Your task to perform on an android device: Clear the shopping cart on walmart.com. Add "bose soundsport free" to the cart on walmart.com Image 0: 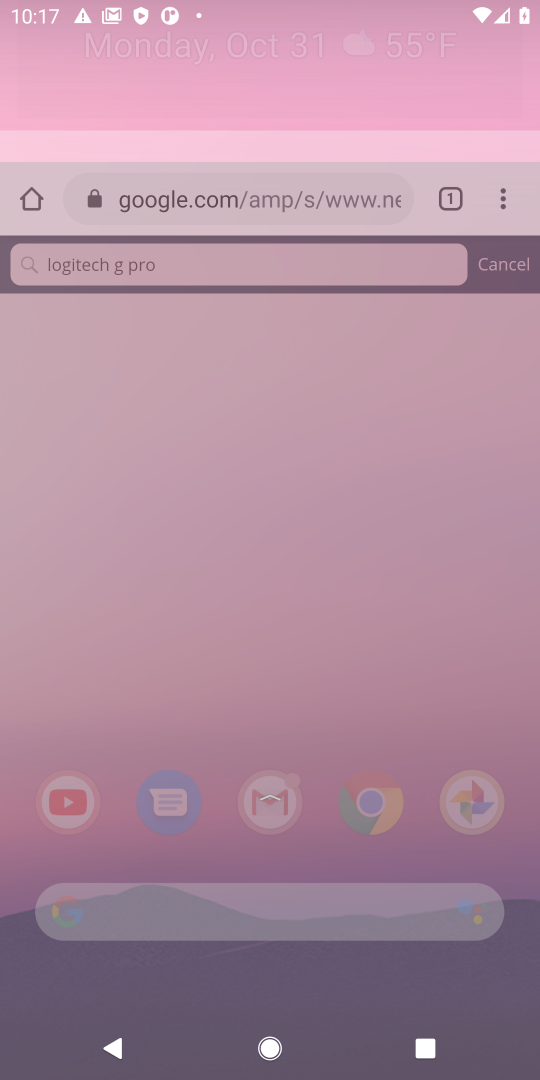
Step 0: press home button
Your task to perform on an android device: Clear the shopping cart on walmart.com. Add "bose soundsport free" to the cart on walmart.com Image 1: 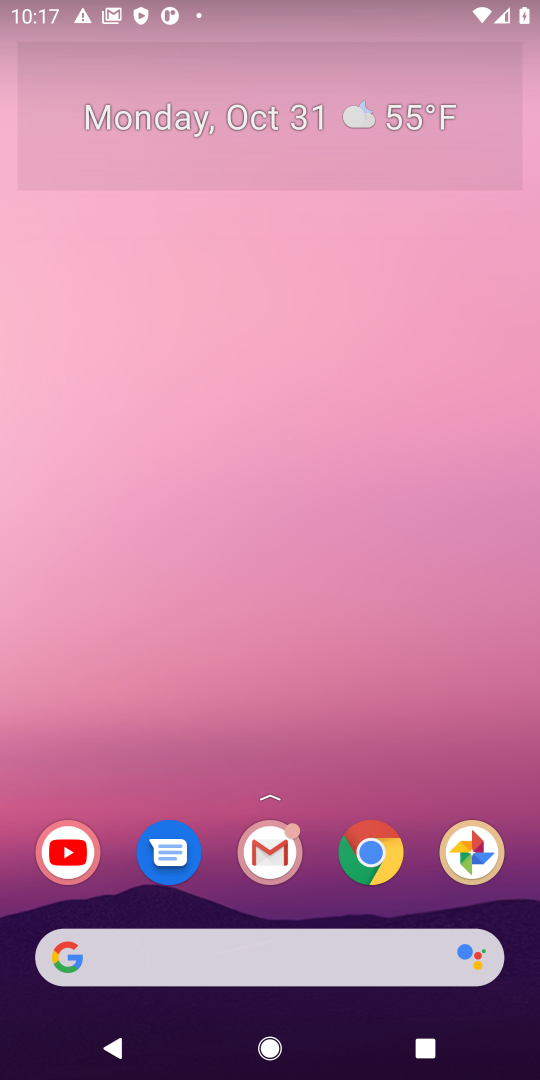
Step 1: drag from (311, 806) to (345, 112)
Your task to perform on an android device: Clear the shopping cart on walmart.com. Add "bose soundsport free" to the cart on walmart.com Image 2: 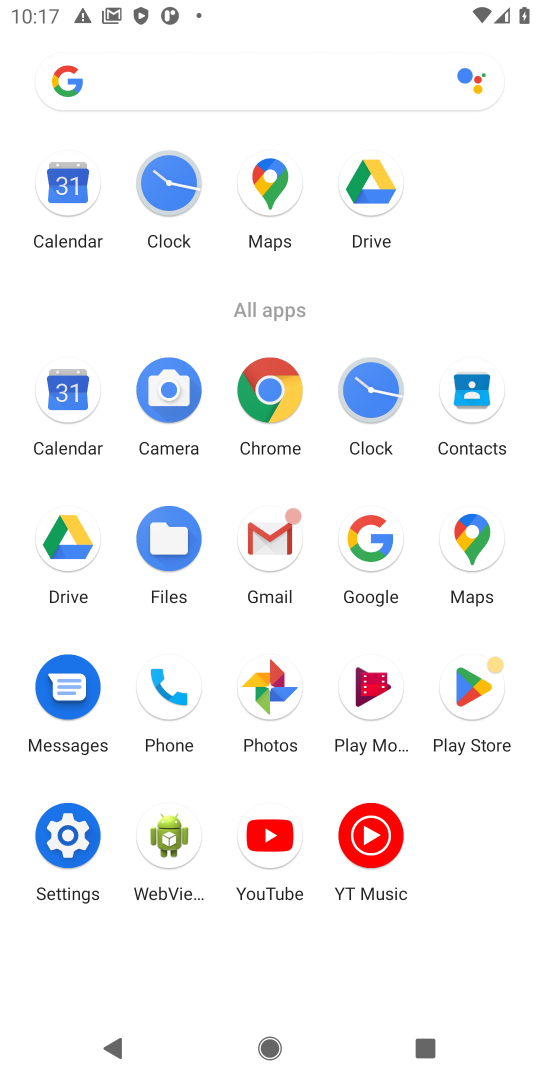
Step 2: click (267, 382)
Your task to perform on an android device: Clear the shopping cart on walmart.com. Add "bose soundsport free" to the cart on walmart.com Image 3: 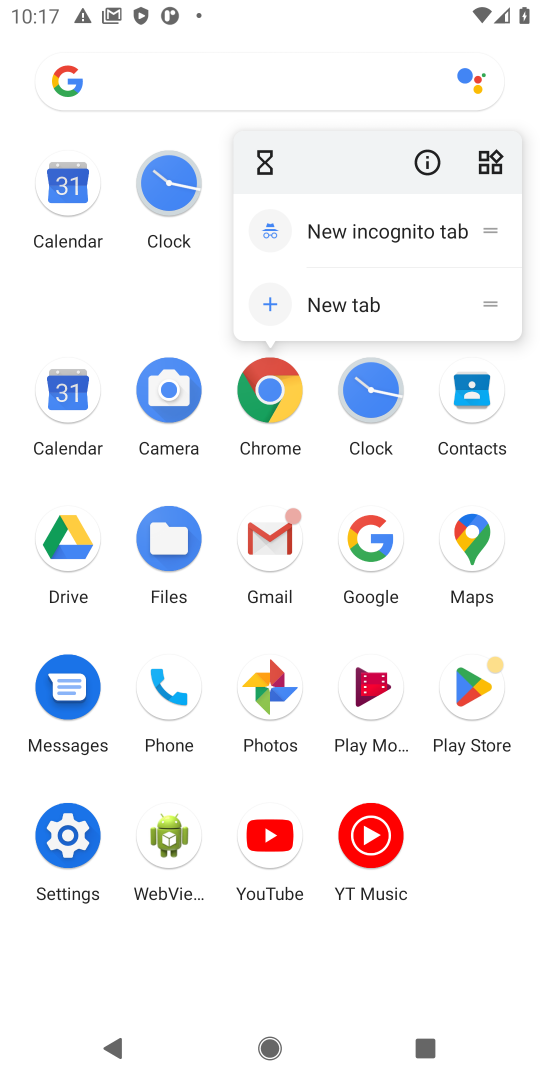
Step 3: click (267, 382)
Your task to perform on an android device: Clear the shopping cart on walmart.com. Add "bose soundsport free" to the cart on walmart.com Image 4: 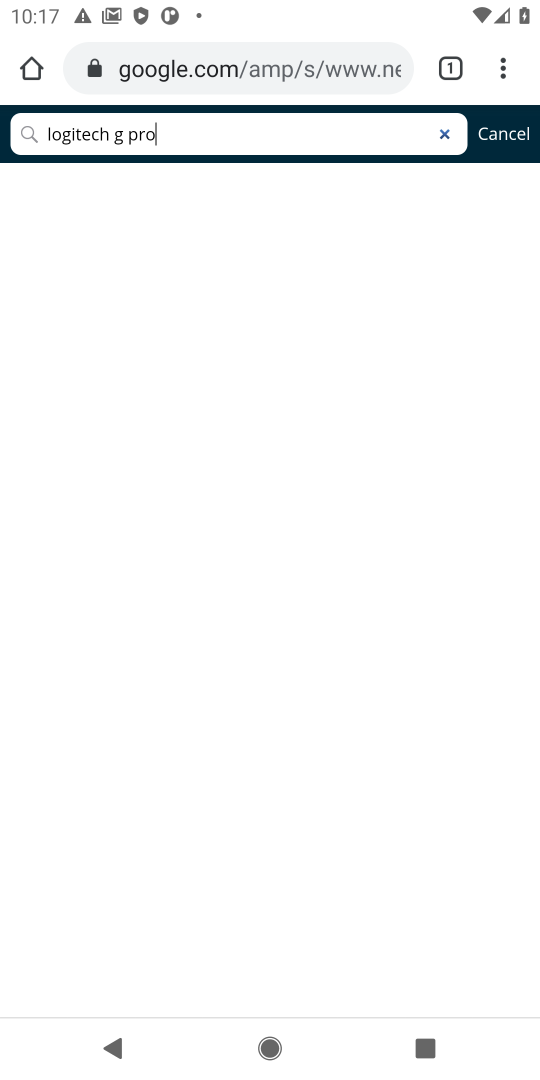
Step 4: click (441, 137)
Your task to perform on an android device: Clear the shopping cart on walmart.com. Add "bose soundsport free" to the cart on walmart.com Image 5: 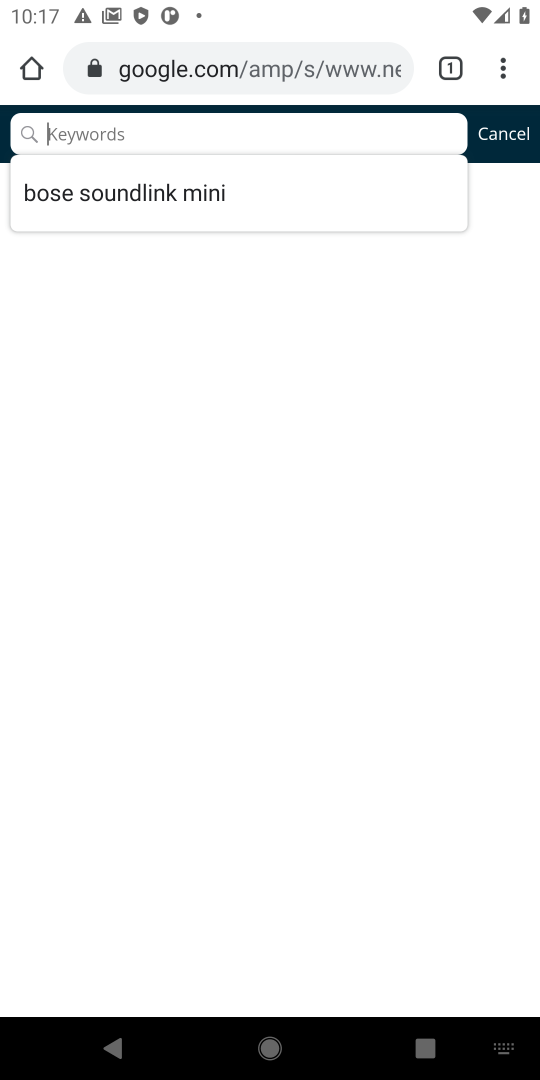
Step 5: click (181, 62)
Your task to perform on an android device: Clear the shopping cart on walmart.com. Add "bose soundsport free" to the cart on walmart.com Image 6: 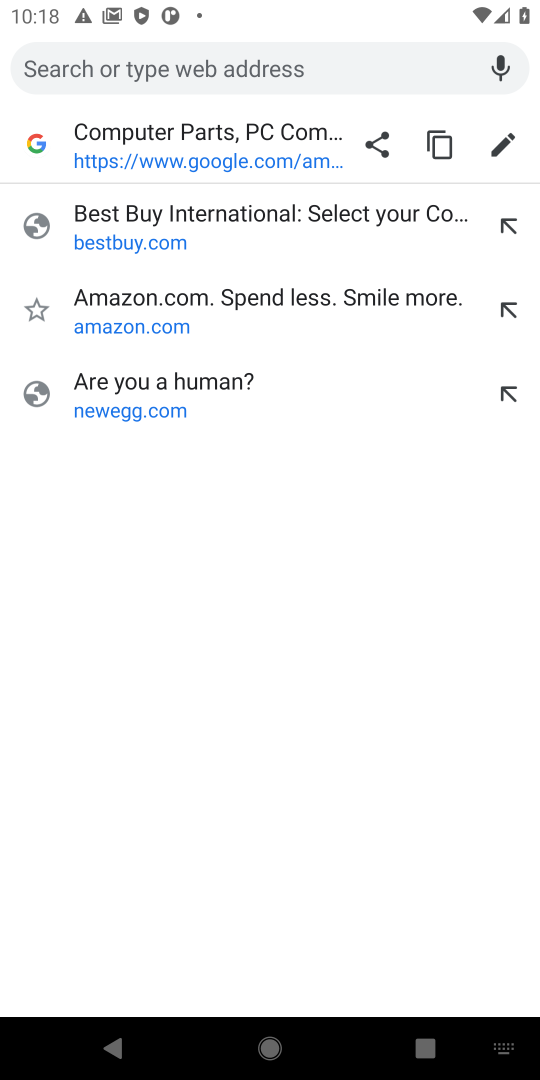
Step 6: type "walmart.com"
Your task to perform on an android device: Clear the shopping cart on walmart.com. Add "bose soundsport free" to the cart on walmart.com Image 7: 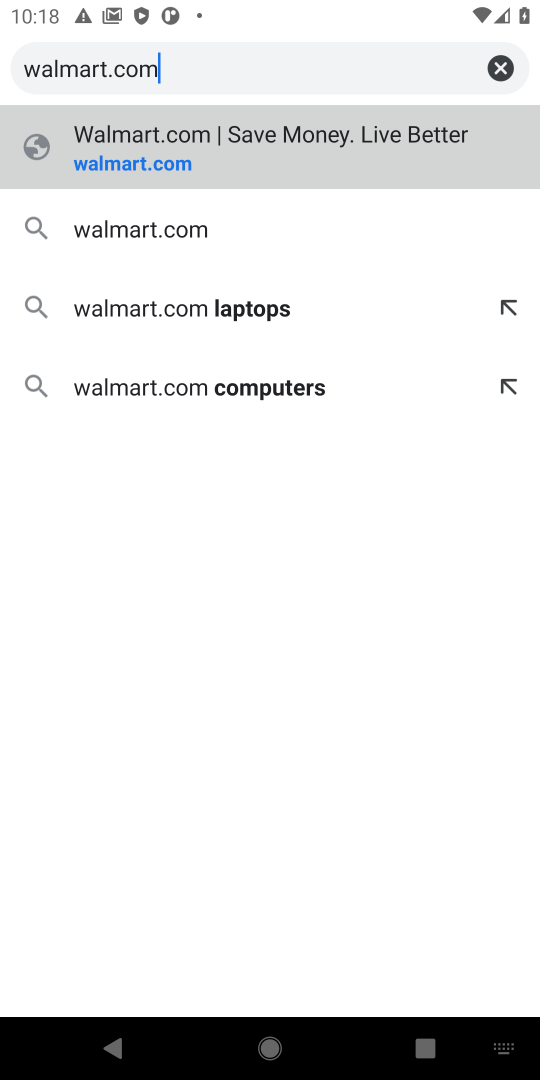
Step 7: click (226, 154)
Your task to perform on an android device: Clear the shopping cart on walmart.com. Add "bose soundsport free" to the cart on walmart.com Image 8: 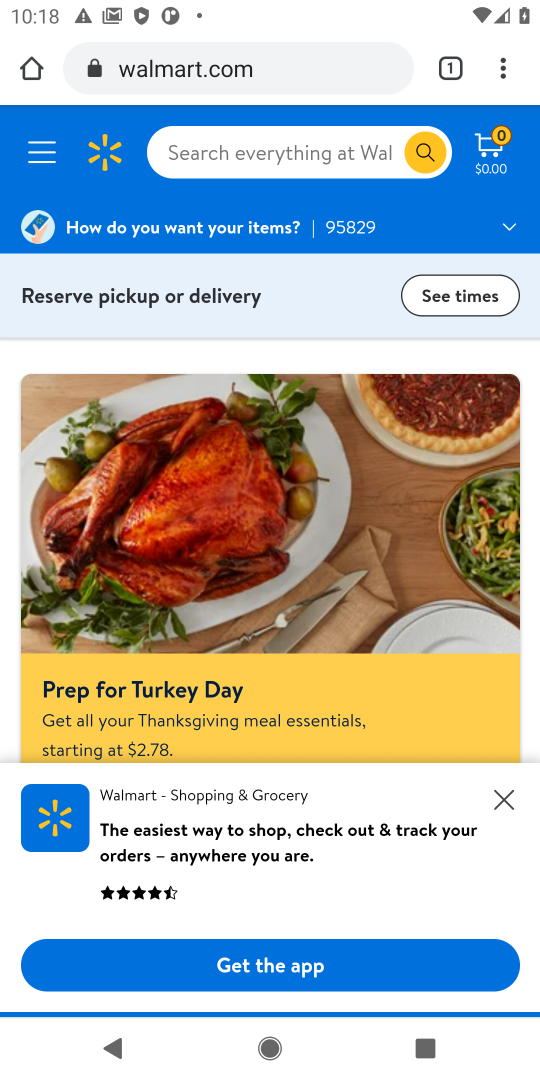
Step 8: click (504, 800)
Your task to perform on an android device: Clear the shopping cart on walmart.com. Add "bose soundsport free" to the cart on walmart.com Image 9: 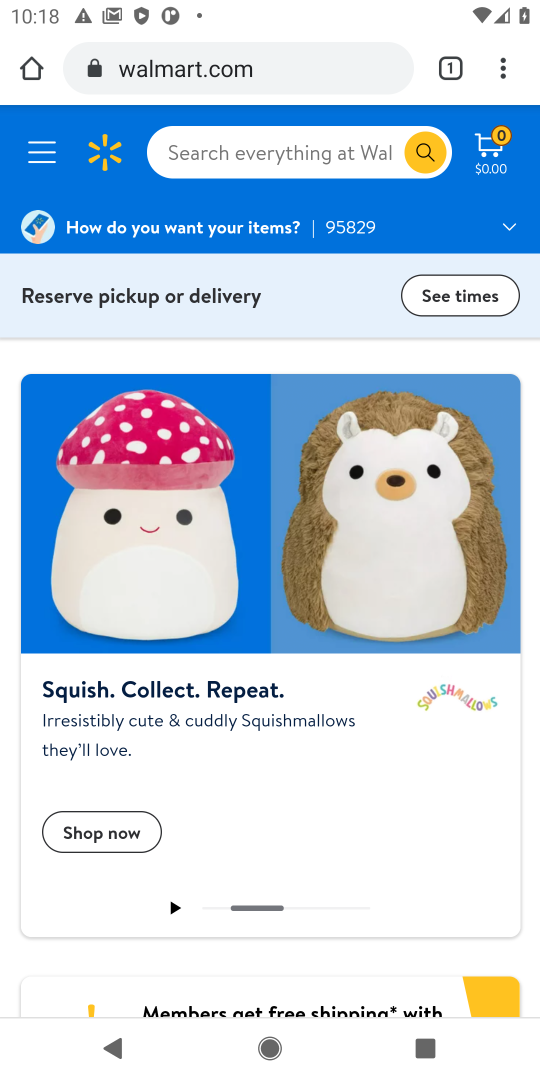
Step 9: click (244, 134)
Your task to perform on an android device: Clear the shopping cart on walmart.com. Add "bose soundsport free" to the cart on walmart.com Image 10: 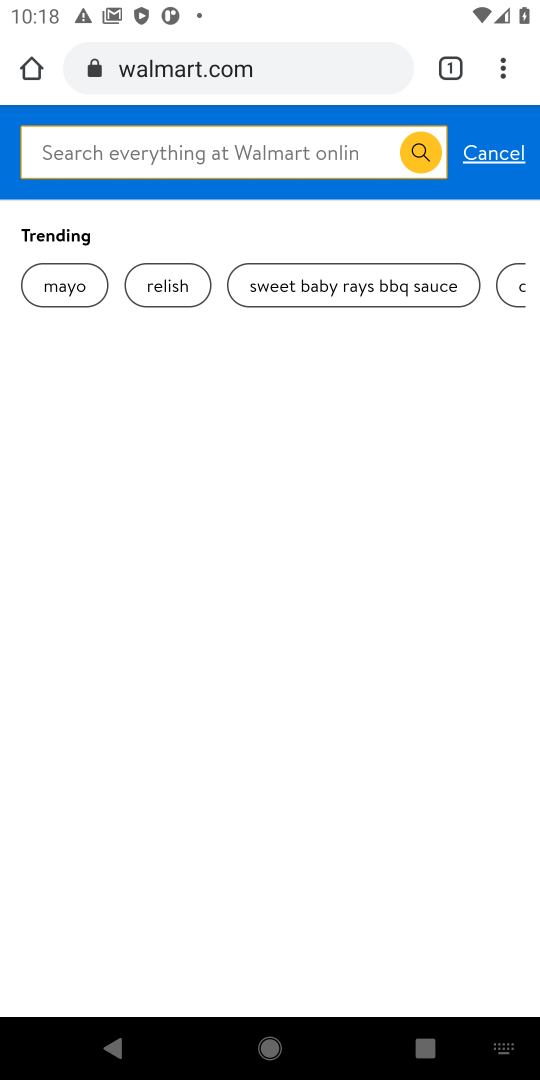
Step 10: type "bose soundsport free"
Your task to perform on an android device: Clear the shopping cart on walmart.com. Add "bose soundsport free" to the cart on walmart.com Image 11: 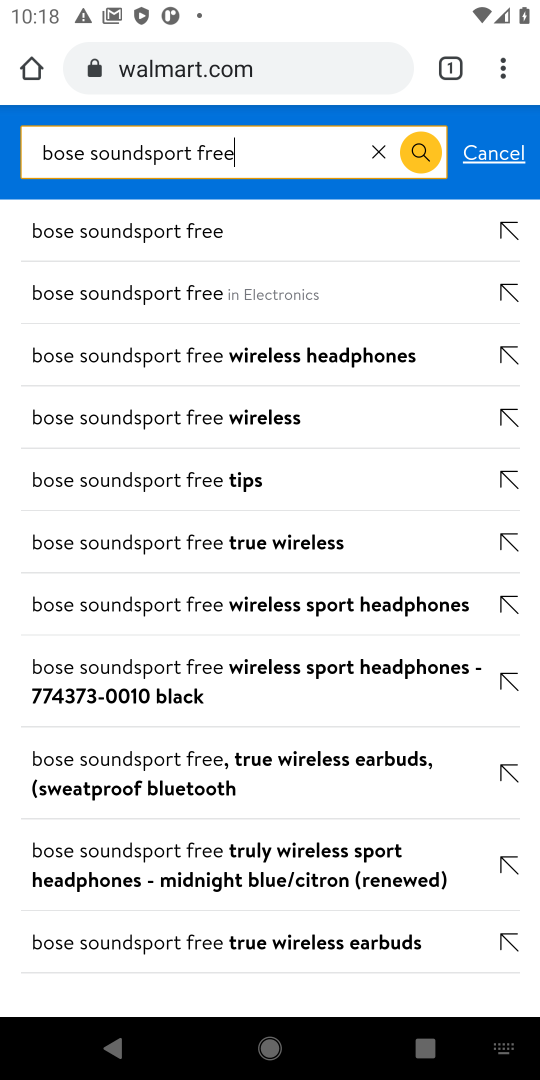
Step 11: click (225, 234)
Your task to perform on an android device: Clear the shopping cart on walmart.com. Add "bose soundsport free" to the cart on walmart.com Image 12: 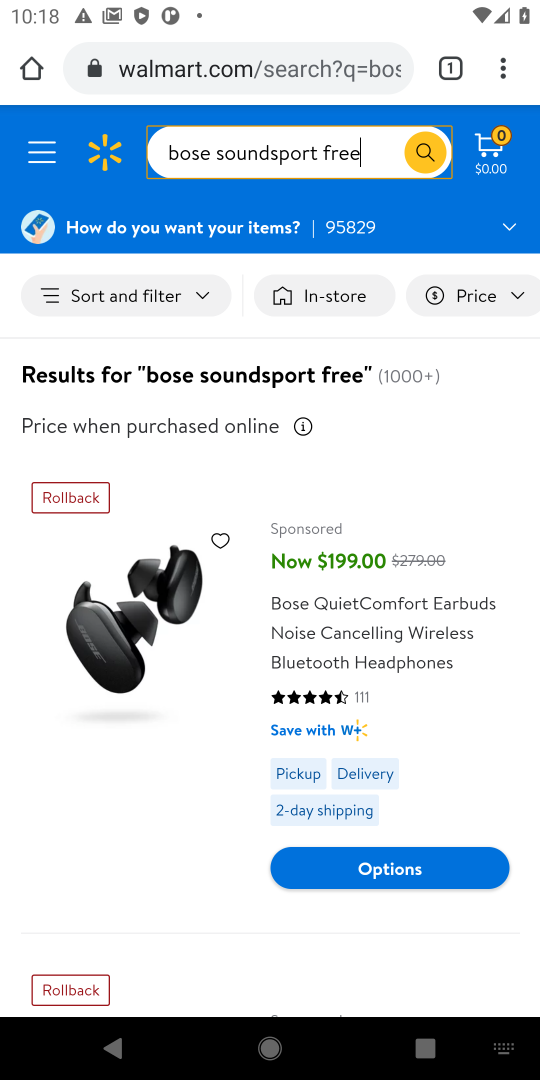
Step 12: drag from (238, 856) to (230, 315)
Your task to perform on an android device: Clear the shopping cart on walmart.com. Add "bose soundsport free" to the cart on walmart.com Image 13: 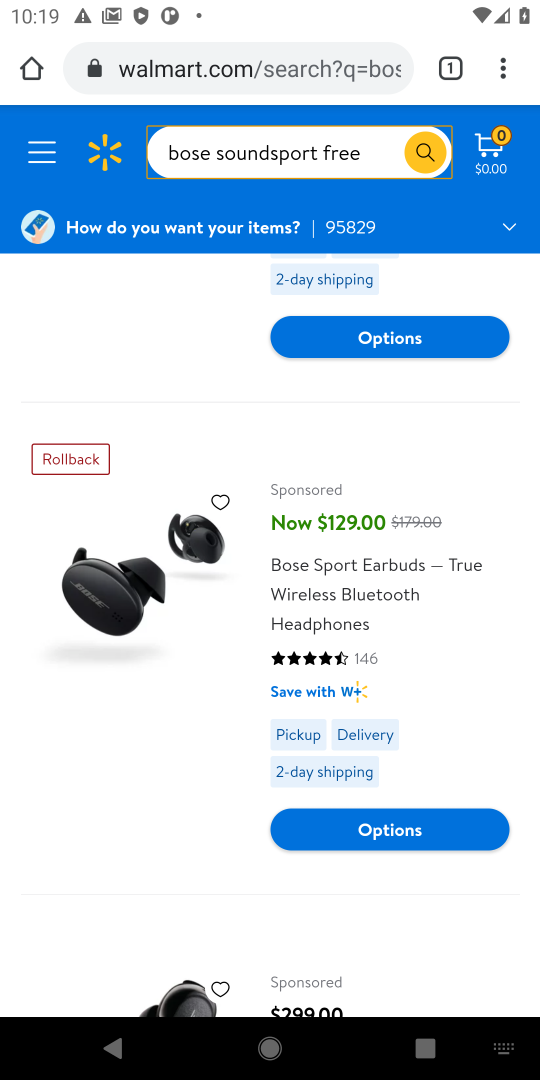
Step 13: click (334, 584)
Your task to perform on an android device: Clear the shopping cart on walmart.com. Add "bose soundsport free" to the cart on walmart.com Image 14: 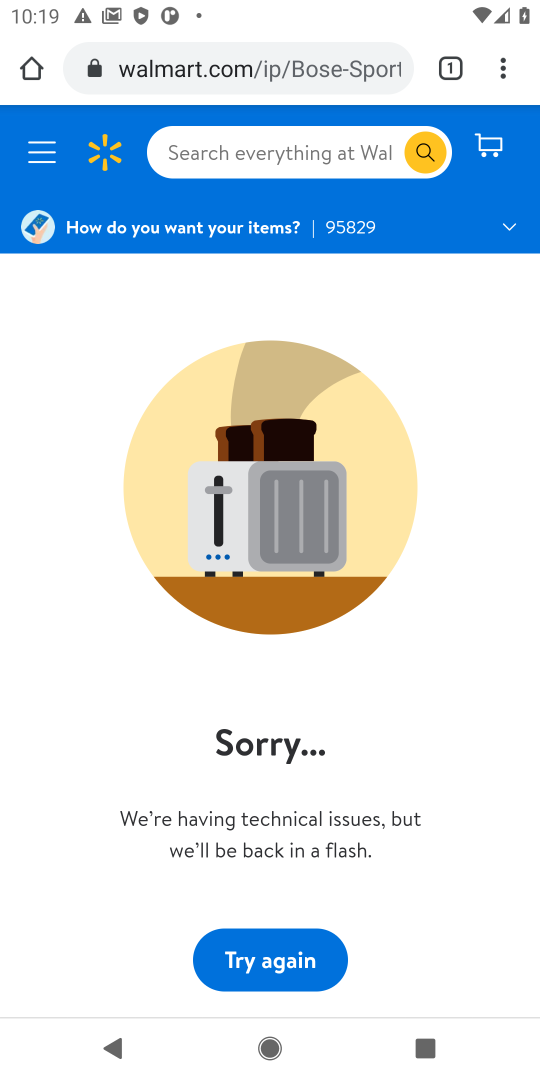
Step 14: press back button
Your task to perform on an android device: Clear the shopping cart on walmart.com. Add "bose soundsport free" to the cart on walmart.com Image 15: 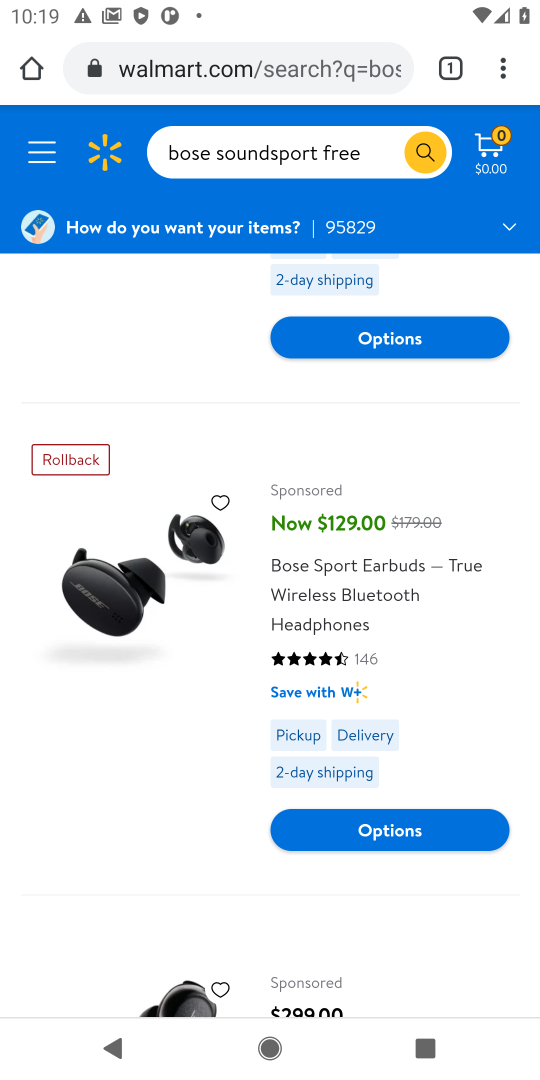
Step 15: drag from (249, 877) to (232, 422)
Your task to perform on an android device: Clear the shopping cart on walmart.com. Add "bose soundsport free" to the cart on walmart.com Image 16: 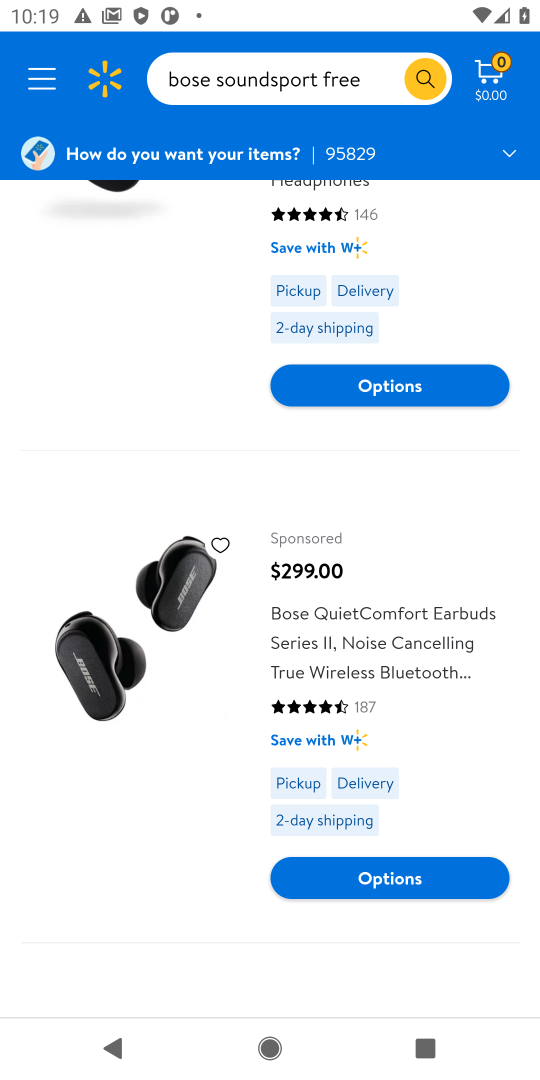
Step 16: click (357, 634)
Your task to perform on an android device: Clear the shopping cart on walmart.com. Add "bose soundsport free" to the cart on walmart.com Image 17: 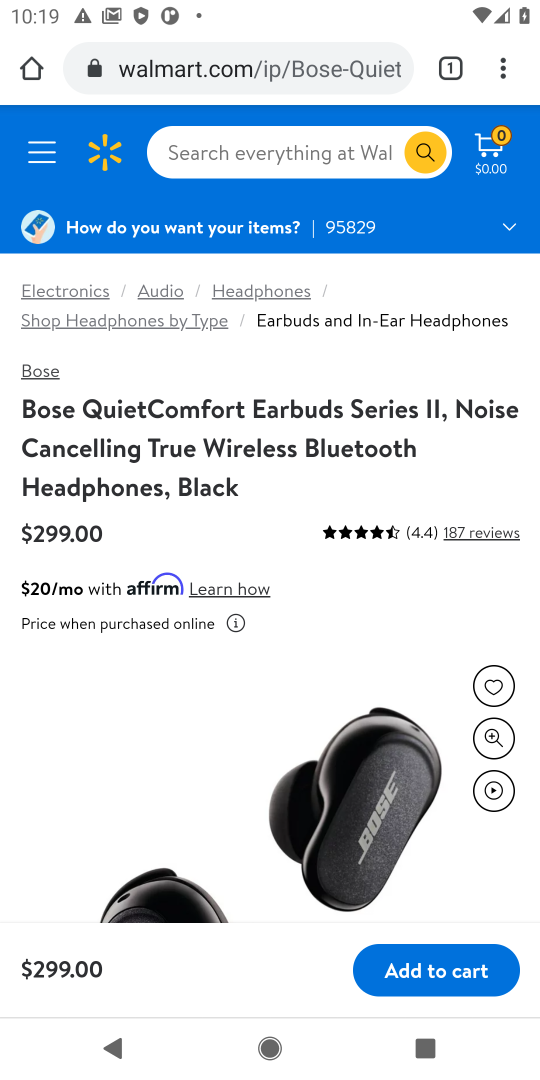
Step 17: drag from (441, 876) to (434, 400)
Your task to perform on an android device: Clear the shopping cart on walmart.com. Add "bose soundsport free" to the cart on walmart.com Image 18: 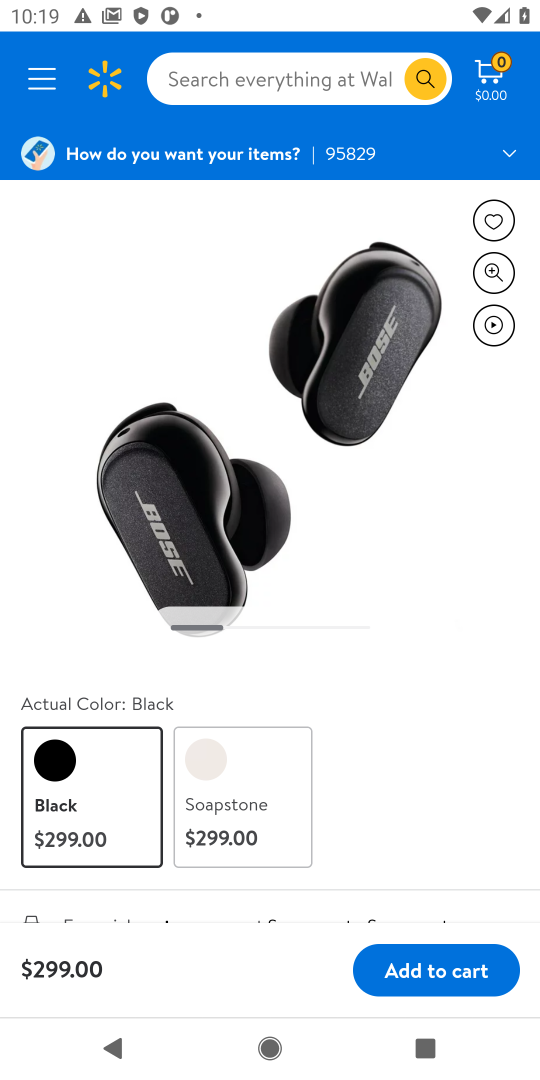
Step 18: drag from (378, 865) to (376, 470)
Your task to perform on an android device: Clear the shopping cart on walmart.com. Add "bose soundsport free" to the cart on walmart.com Image 19: 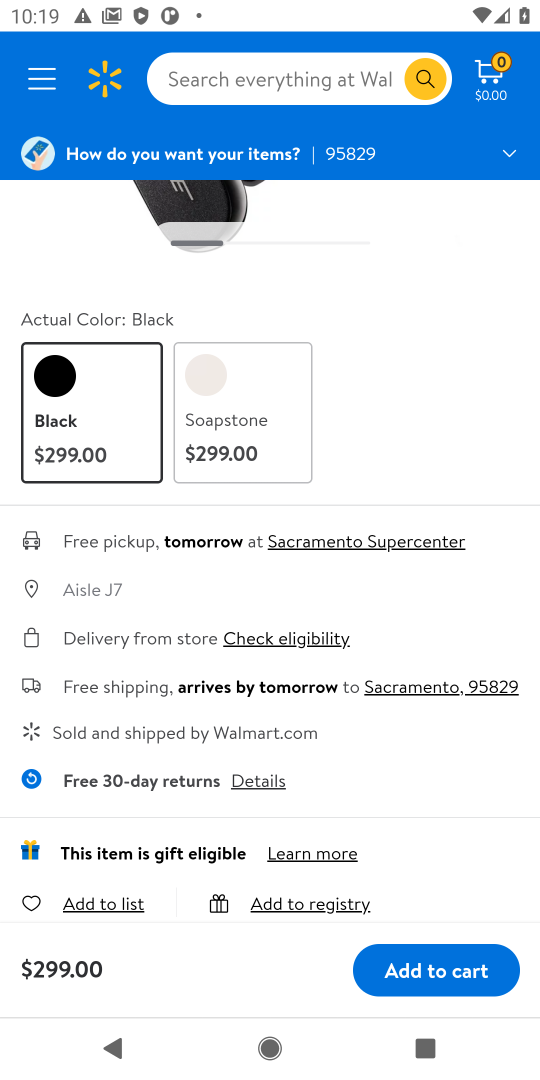
Step 19: click (458, 972)
Your task to perform on an android device: Clear the shopping cart on walmart.com. Add "bose soundsport free" to the cart on walmart.com Image 20: 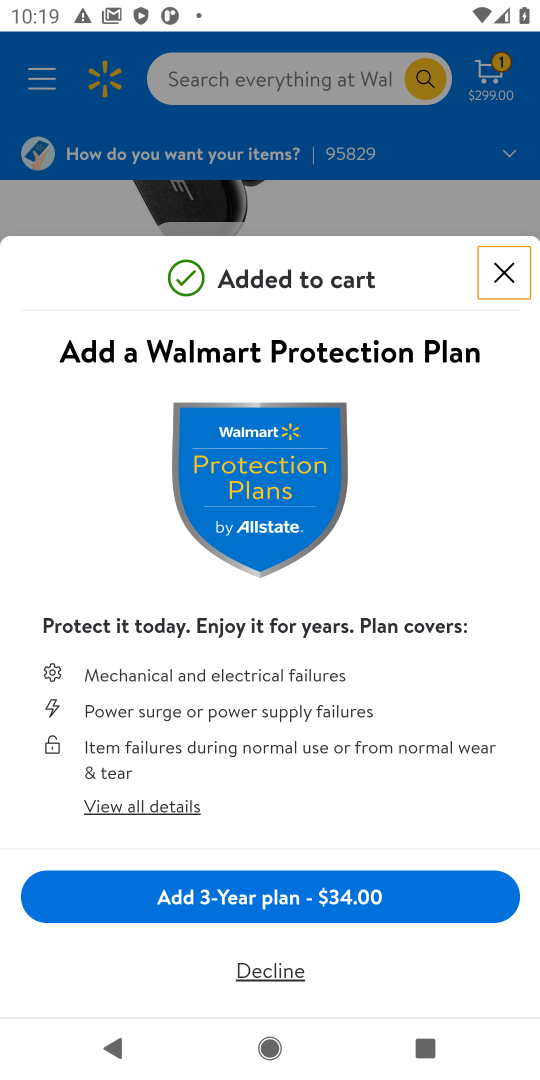
Step 20: click (501, 267)
Your task to perform on an android device: Clear the shopping cart on walmart.com. Add "bose soundsport free" to the cart on walmart.com Image 21: 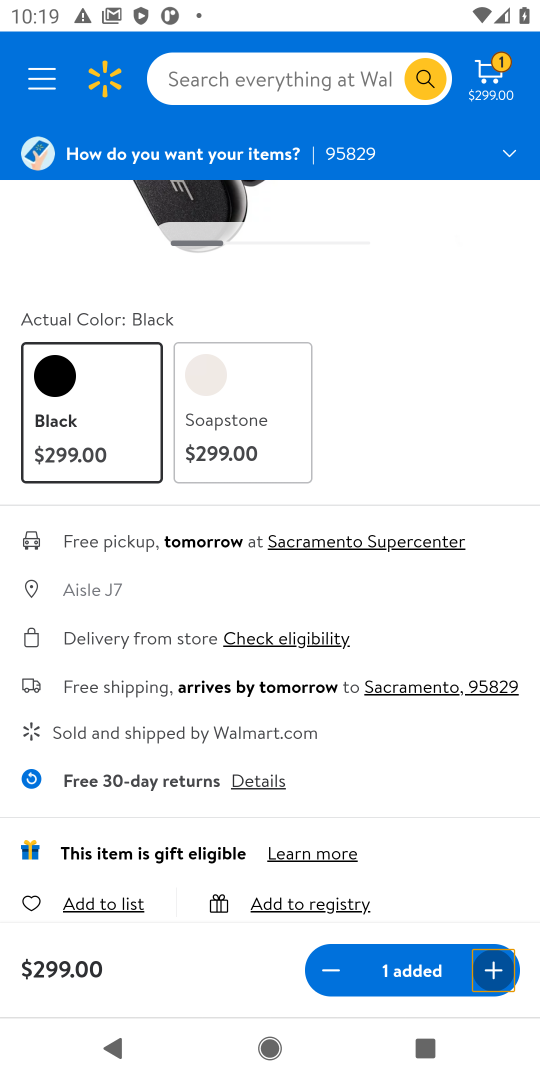
Step 21: click (493, 71)
Your task to perform on an android device: Clear the shopping cart on walmart.com. Add "bose soundsport free" to the cart on walmart.com Image 22: 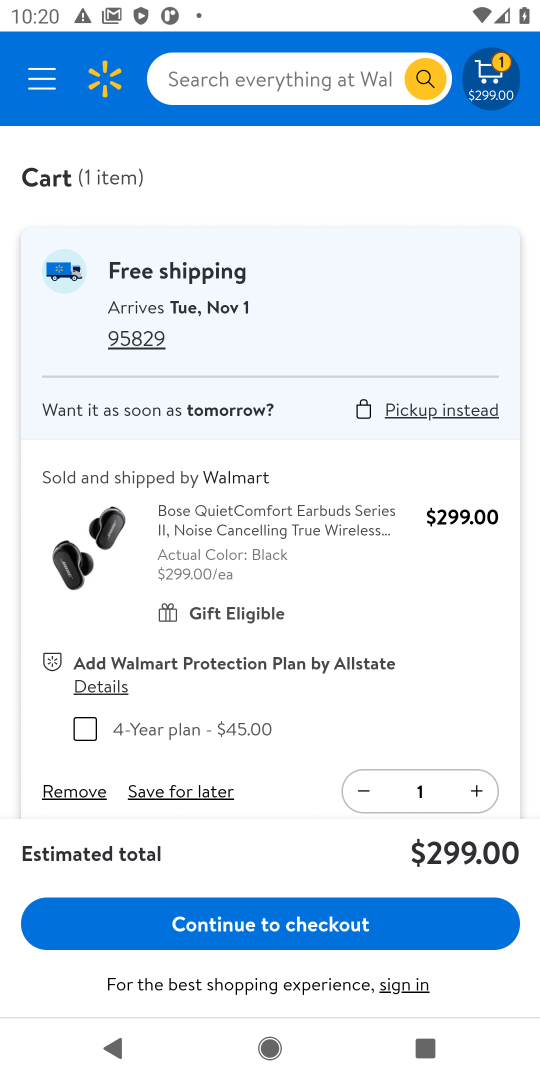
Step 22: task complete